Your task to perform on an android device: Open wifi settings Image 0: 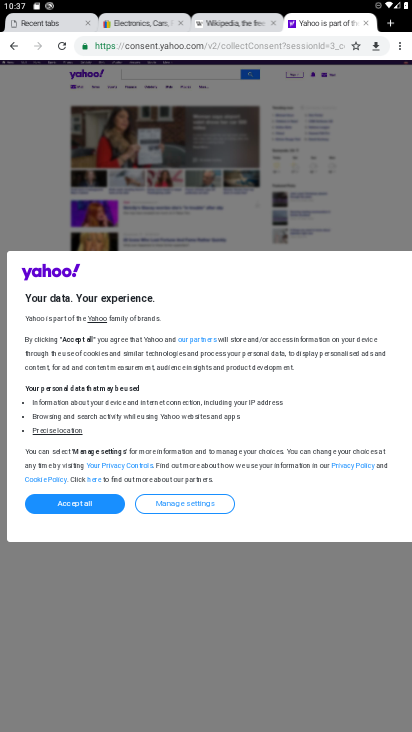
Step 0: drag from (178, 8) to (229, 579)
Your task to perform on an android device: Open wifi settings Image 1: 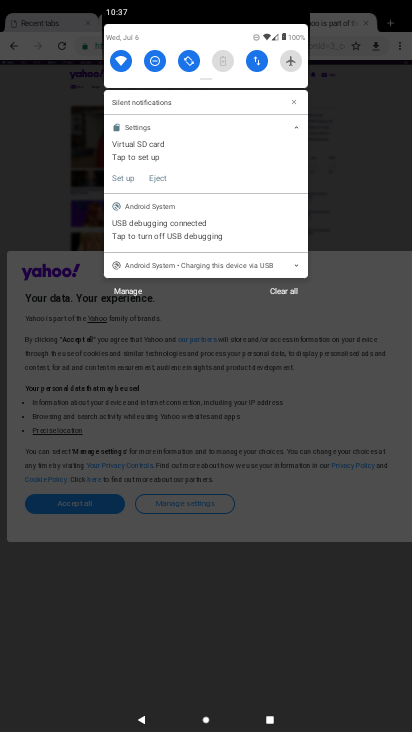
Step 1: click (125, 63)
Your task to perform on an android device: Open wifi settings Image 2: 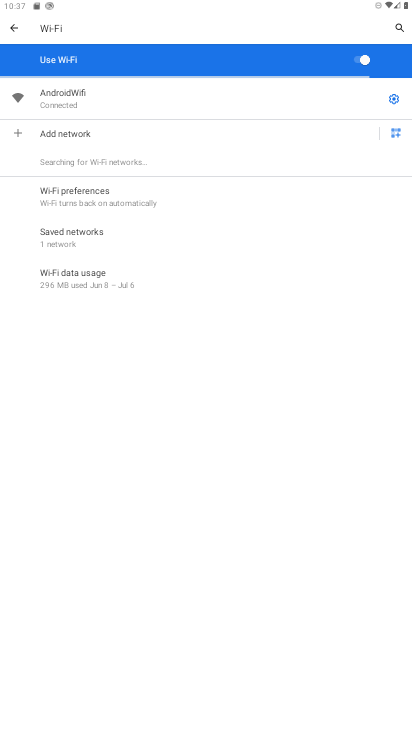
Step 2: task complete